Your task to perform on an android device: check data usage Image 0: 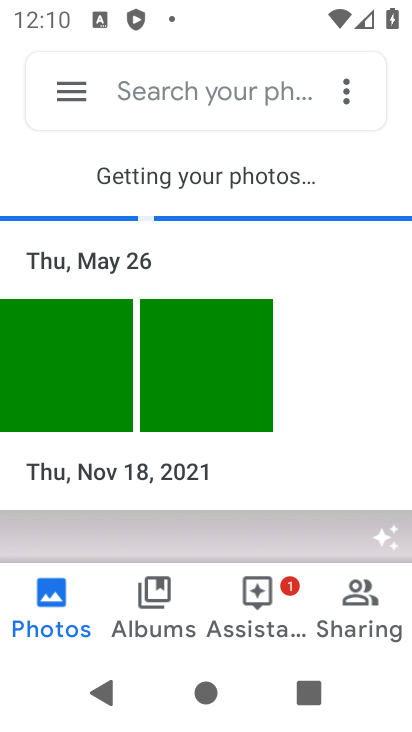
Step 0: press home button
Your task to perform on an android device: check data usage Image 1: 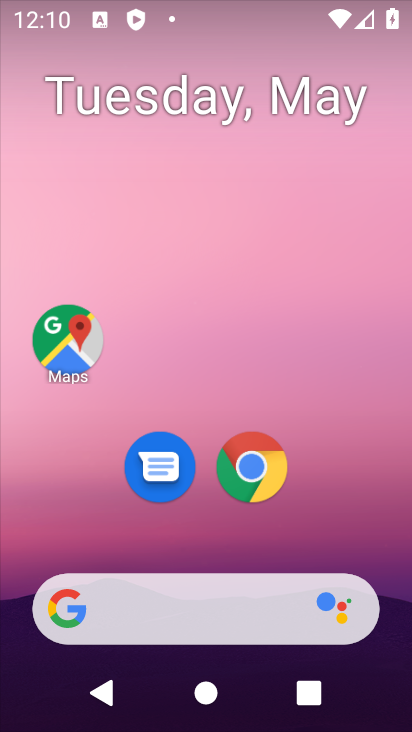
Step 1: drag from (307, 551) to (346, 34)
Your task to perform on an android device: check data usage Image 2: 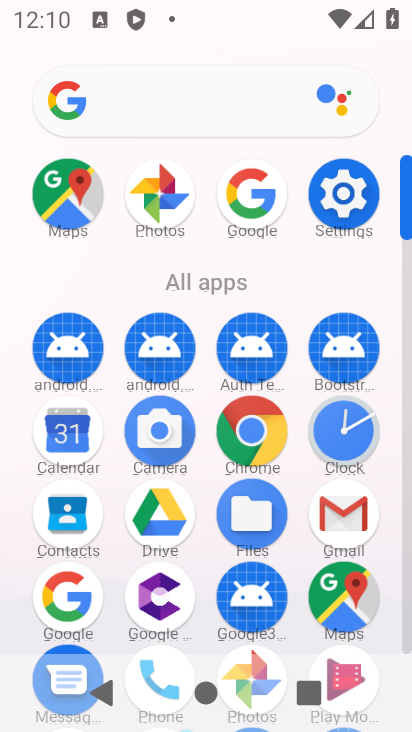
Step 2: click (359, 180)
Your task to perform on an android device: check data usage Image 3: 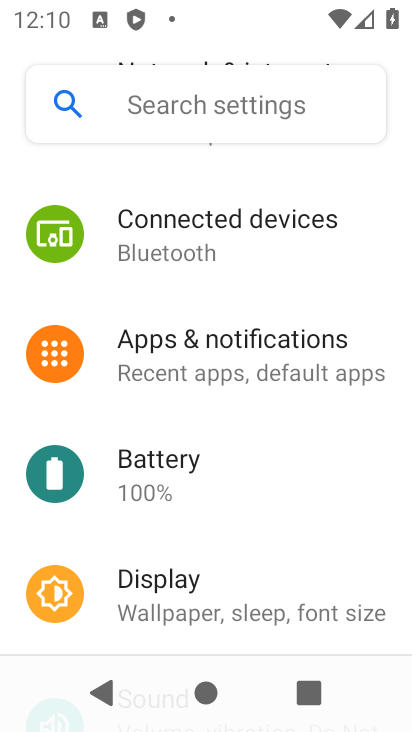
Step 3: drag from (321, 220) to (284, 575)
Your task to perform on an android device: check data usage Image 4: 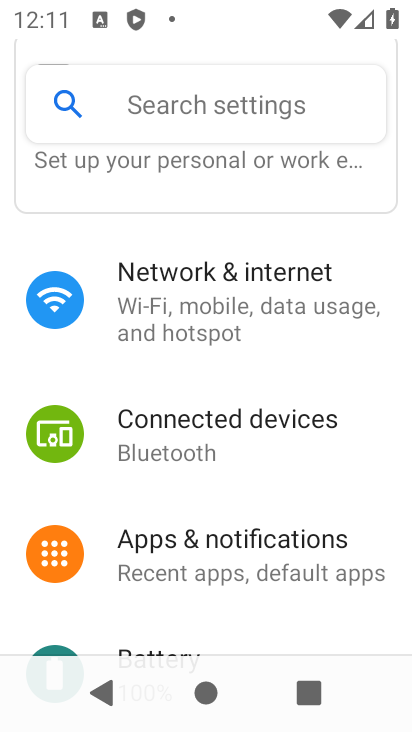
Step 4: click (252, 327)
Your task to perform on an android device: check data usage Image 5: 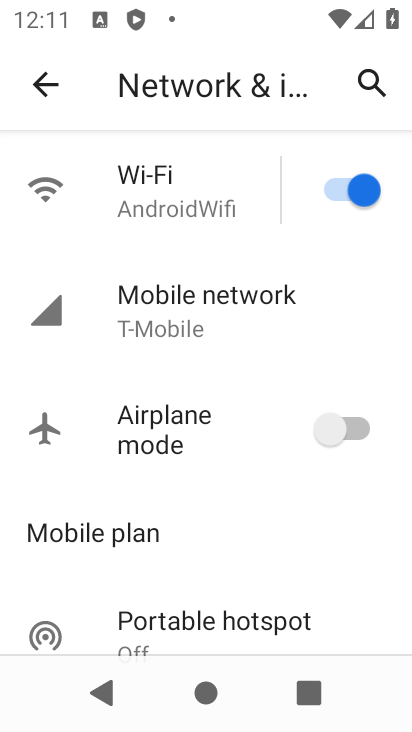
Step 5: click (201, 310)
Your task to perform on an android device: check data usage Image 6: 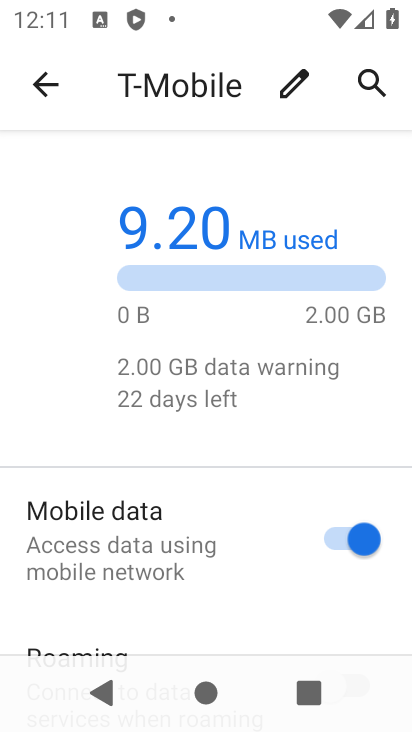
Step 6: drag from (199, 522) to (209, 294)
Your task to perform on an android device: check data usage Image 7: 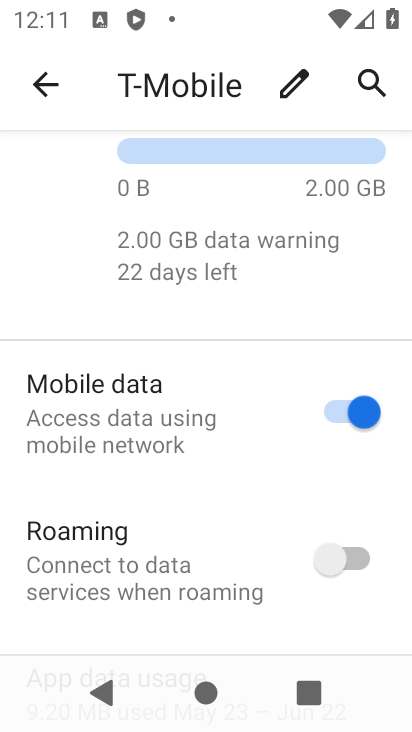
Step 7: drag from (199, 585) to (215, 213)
Your task to perform on an android device: check data usage Image 8: 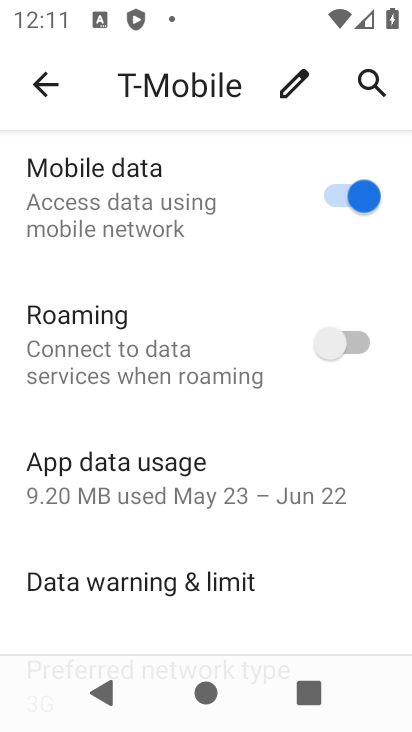
Step 8: click (174, 495)
Your task to perform on an android device: check data usage Image 9: 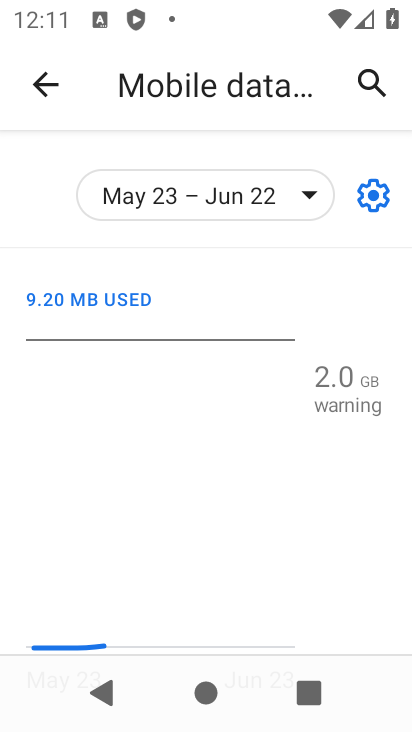
Step 9: task complete